Your task to perform on an android device: turn on translation in the chrome app Image 0: 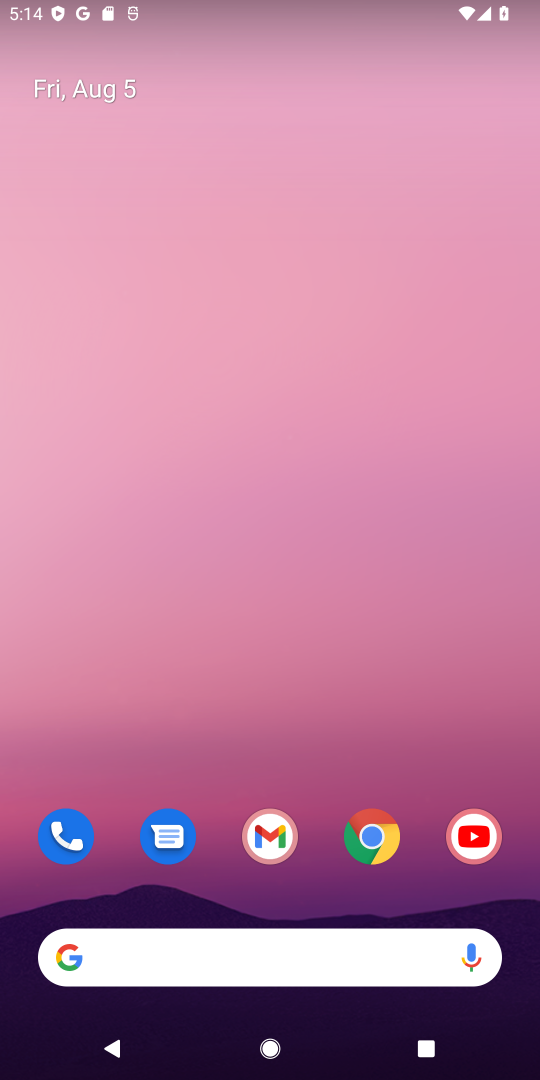
Step 0: click (370, 835)
Your task to perform on an android device: turn on translation in the chrome app Image 1: 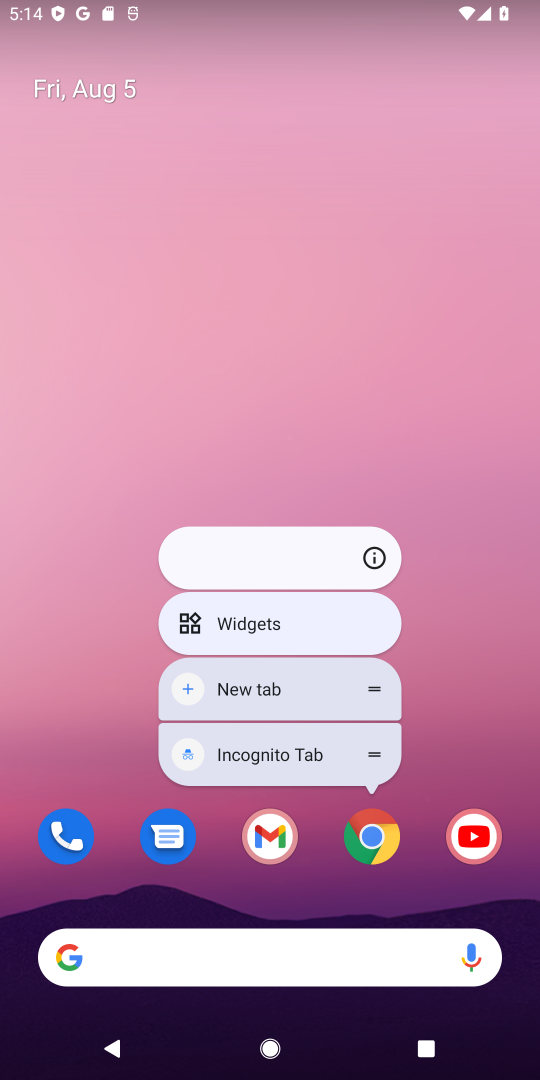
Step 1: click (364, 837)
Your task to perform on an android device: turn on translation in the chrome app Image 2: 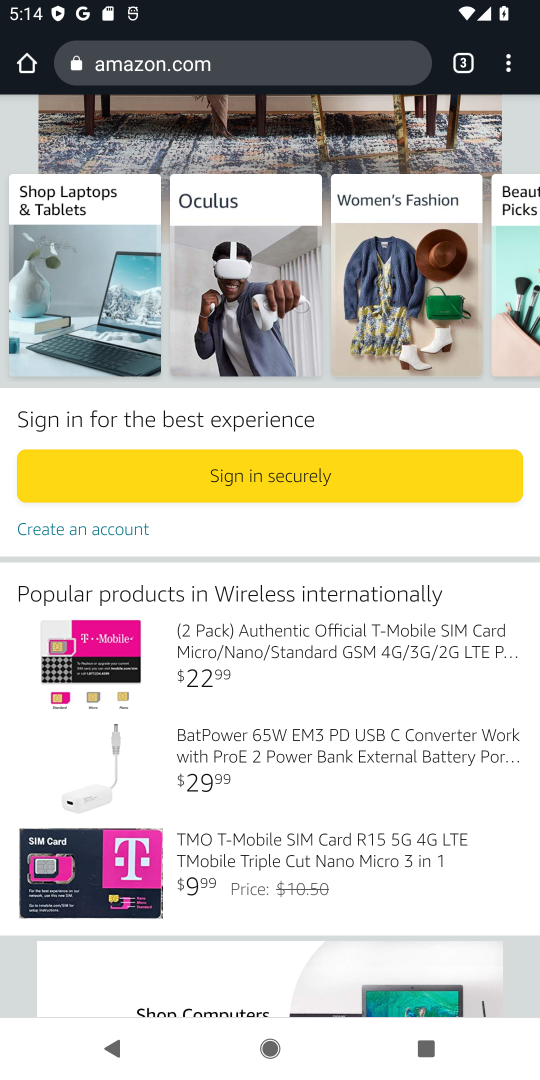
Step 2: click (511, 52)
Your task to perform on an android device: turn on translation in the chrome app Image 3: 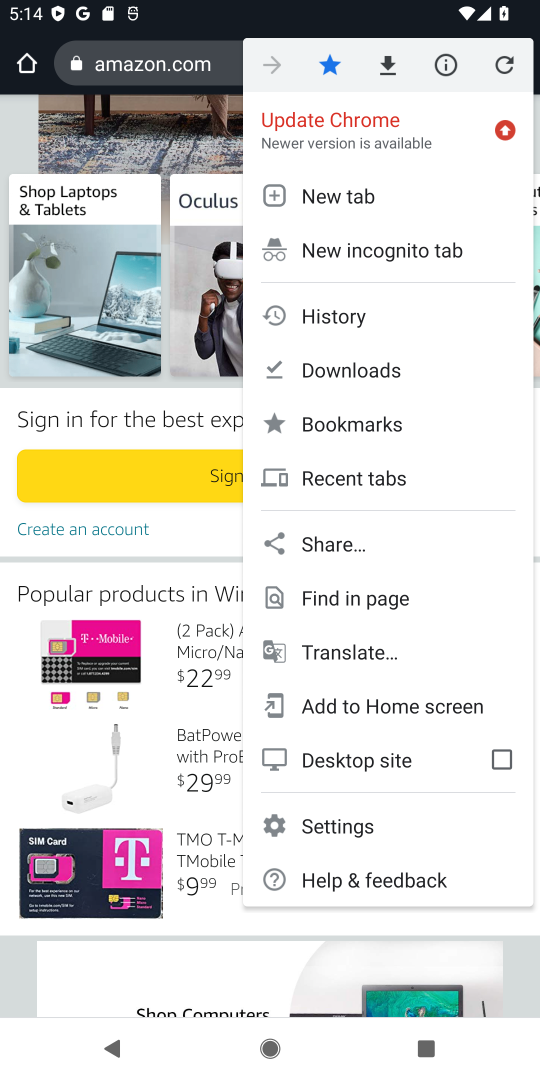
Step 3: click (330, 816)
Your task to perform on an android device: turn on translation in the chrome app Image 4: 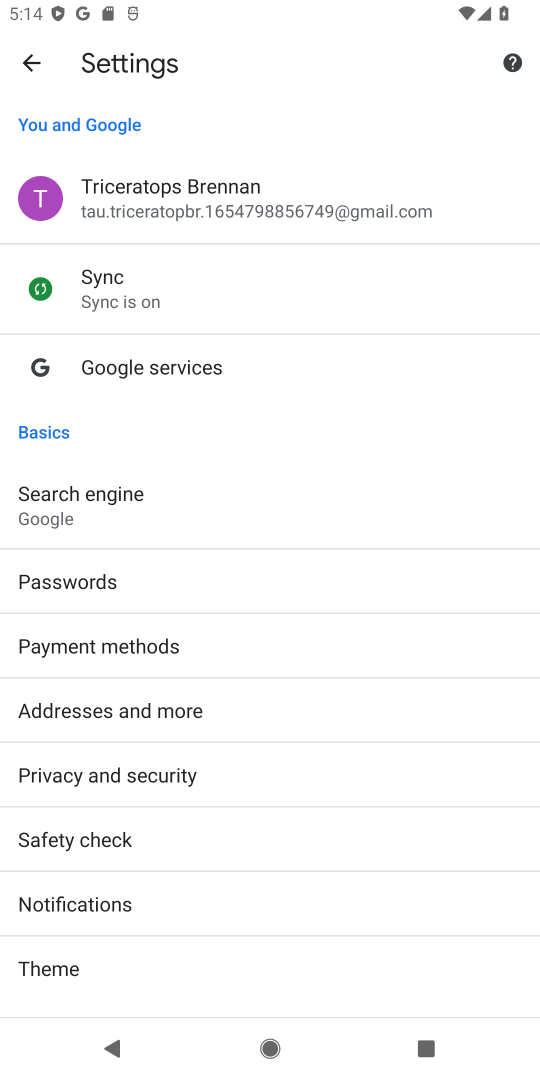
Step 4: drag from (201, 885) to (239, 214)
Your task to perform on an android device: turn on translation in the chrome app Image 5: 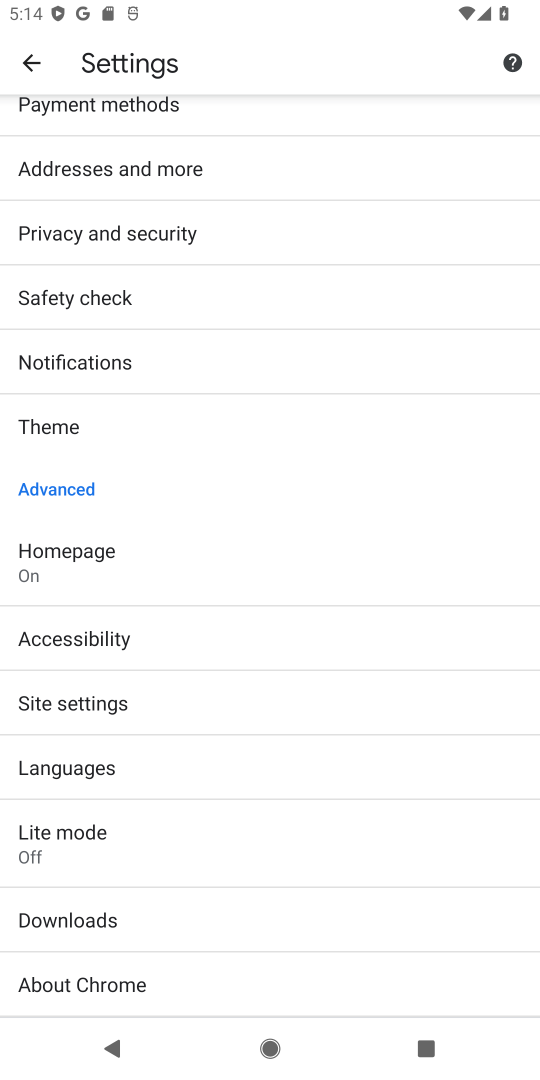
Step 5: click (144, 757)
Your task to perform on an android device: turn on translation in the chrome app Image 6: 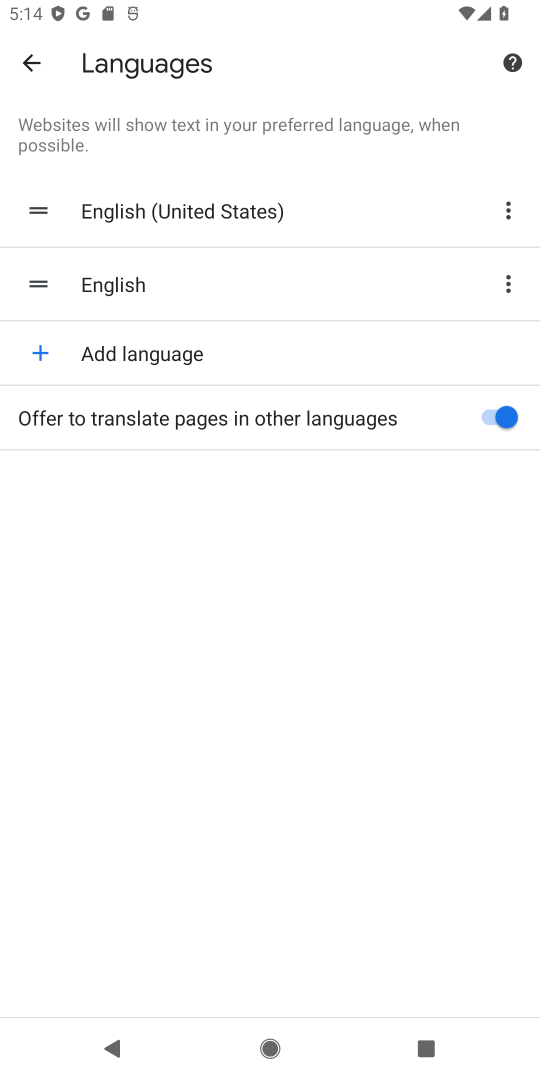
Step 6: task complete